Your task to perform on an android device: Open the web browser Image 0: 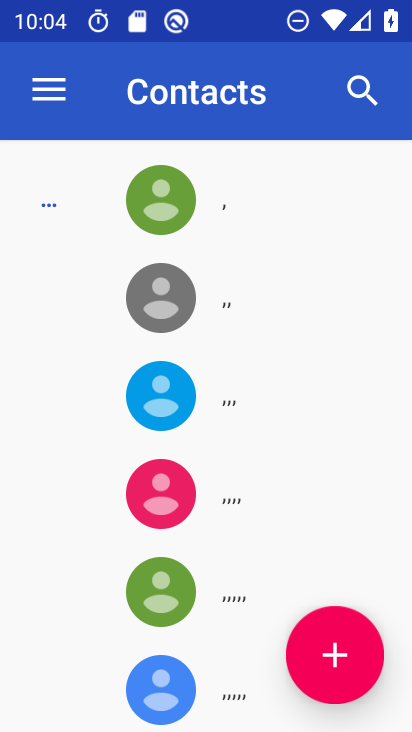
Step 0: press home button
Your task to perform on an android device: Open the web browser Image 1: 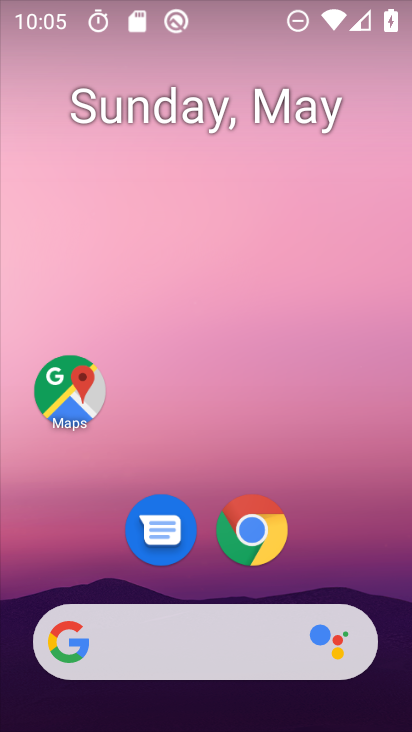
Step 1: drag from (256, 685) to (145, 222)
Your task to perform on an android device: Open the web browser Image 2: 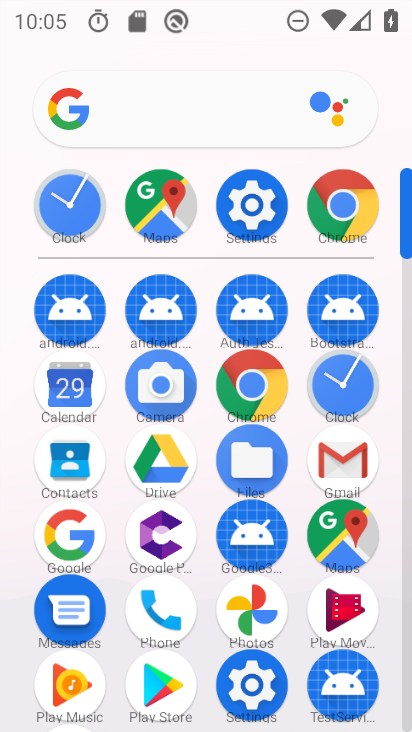
Step 2: click (324, 206)
Your task to perform on an android device: Open the web browser Image 3: 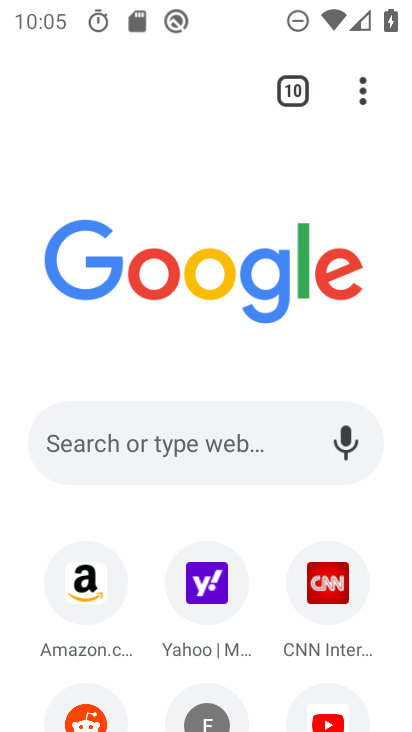
Step 3: click (131, 451)
Your task to perform on an android device: Open the web browser Image 4: 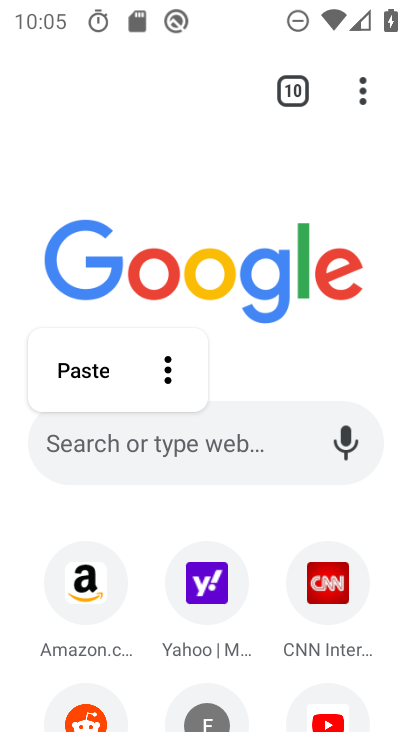
Step 4: click (208, 455)
Your task to perform on an android device: Open the web browser Image 5: 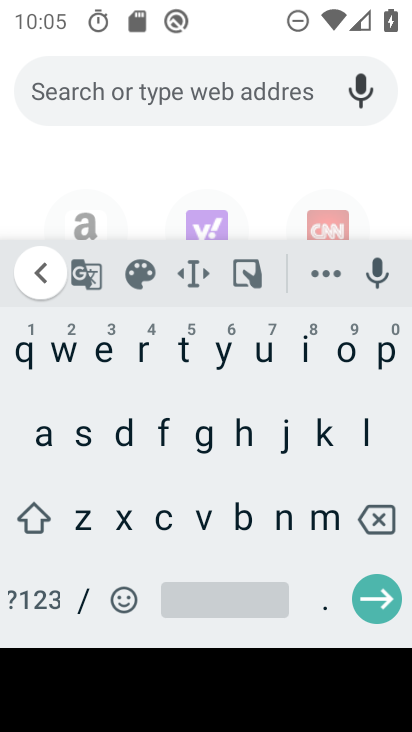
Step 5: task complete